Your task to perform on an android device: check google app version Image 0: 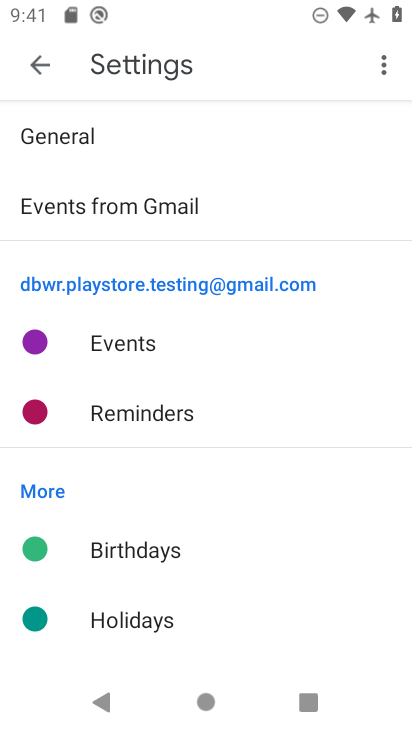
Step 0: press home button
Your task to perform on an android device: check google app version Image 1: 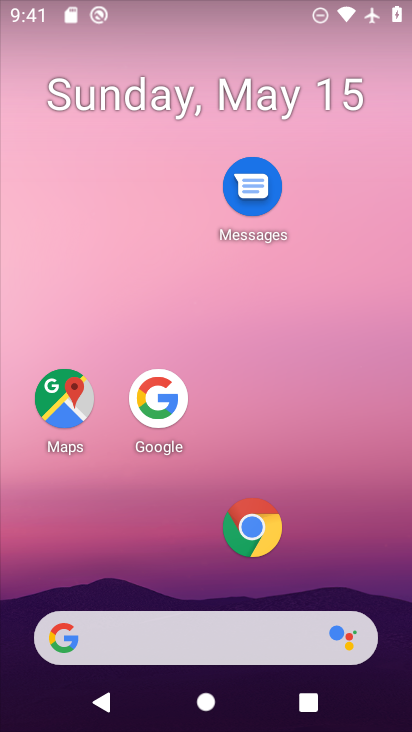
Step 1: drag from (249, 346) to (272, 287)
Your task to perform on an android device: check google app version Image 2: 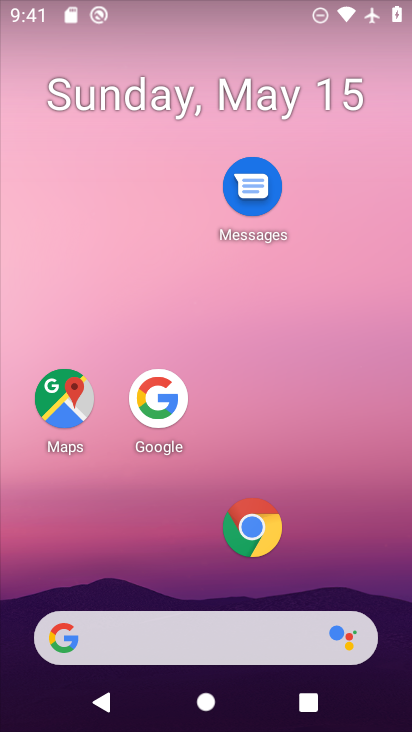
Step 2: drag from (163, 385) to (191, 360)
Your task to perform on an android device: check google app version Image 3: 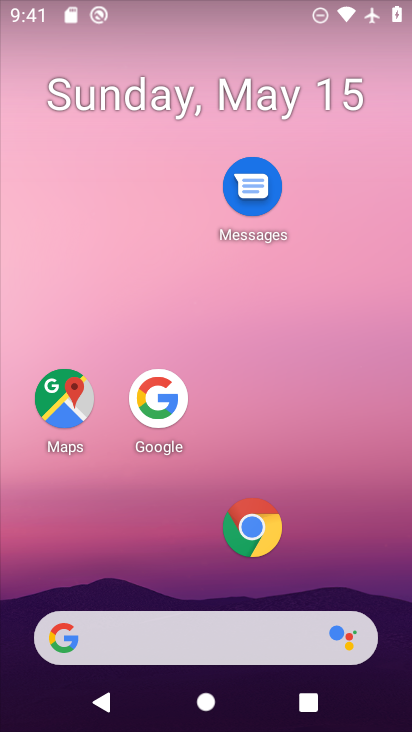
Step 3: click (323, 195)
Your task to perform on an android device: check google app version Image 4: 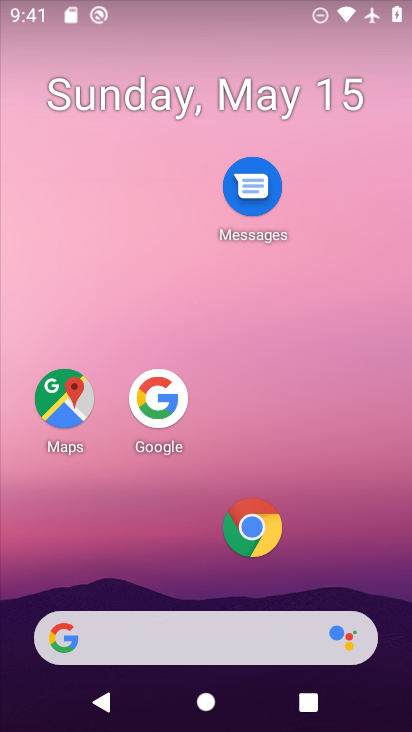
Step 4: drag from (170, 405) to (213, 350)
Your task to perform on an android device: check google app version Image 5: 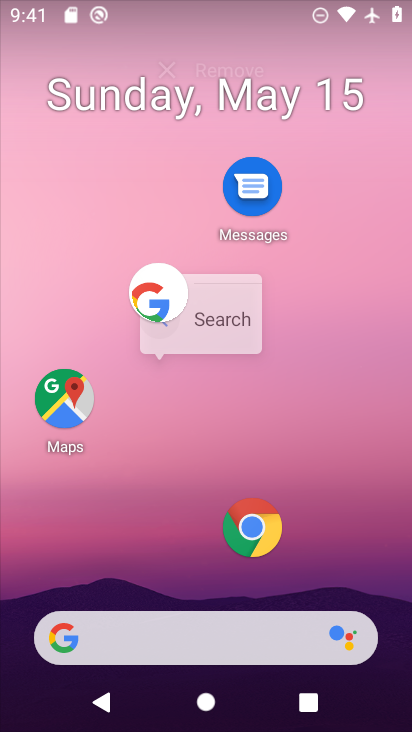
Step 5: click (312, 195)
Your task to perform on an android device: check google app version Image 6: 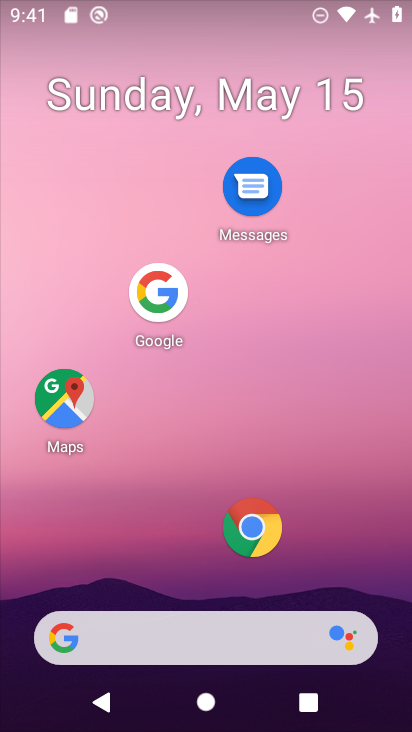
Step 6: drag from (174, 295) to (201, 268)
Your task to perform on an android device: check google app version Image 7: 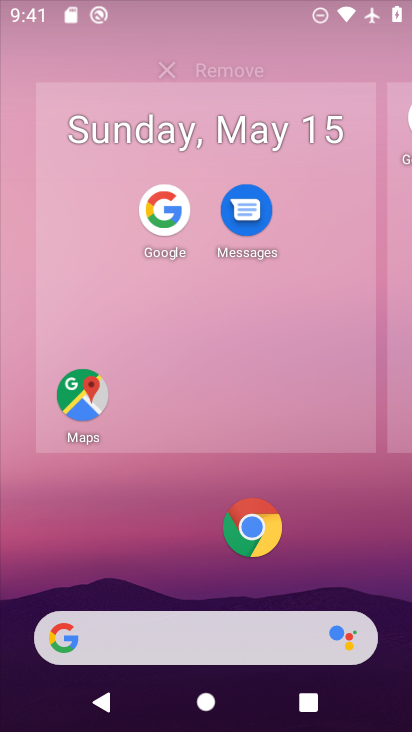
Step 7: click (309, 82)
Your task to perform on an android device: check google app version Image 8: 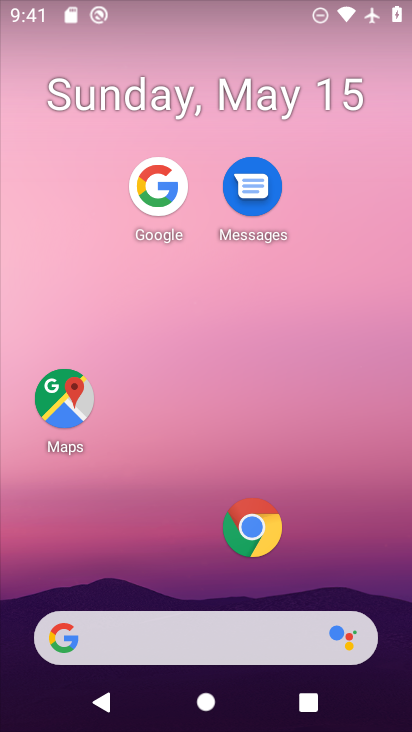
Step 8: click (159, 199)
Your task to perform on an android device: check google app version Image 9: 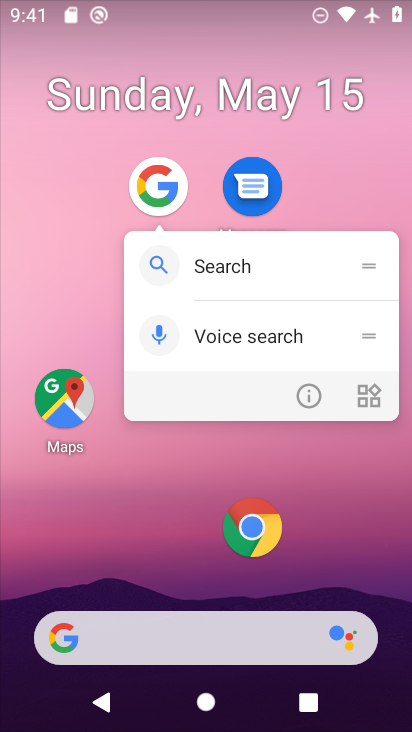
Step 9: click (312, 392)
Your task to perform on an android device: check google app version Image 10: 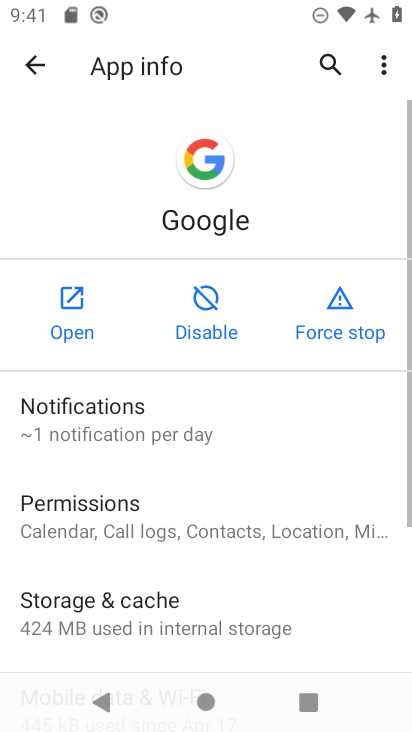
Step 10: drag from (189, 613) to (371, 87)
Your task to perform on an android device: check google app version Image 11: 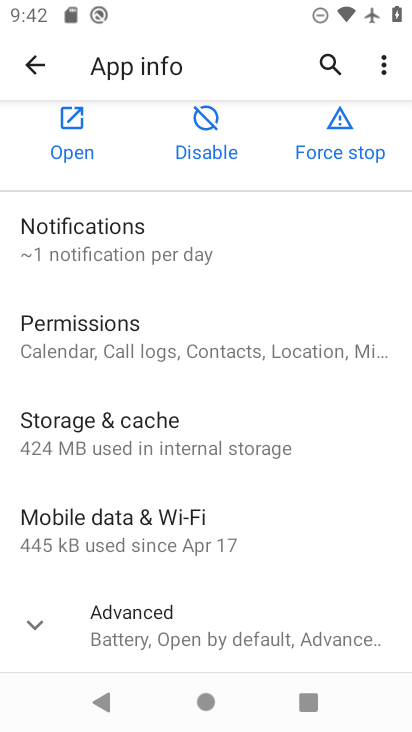
Step 11: click (159, 631)
Your task to perform on an android device: check google app version Image 12: 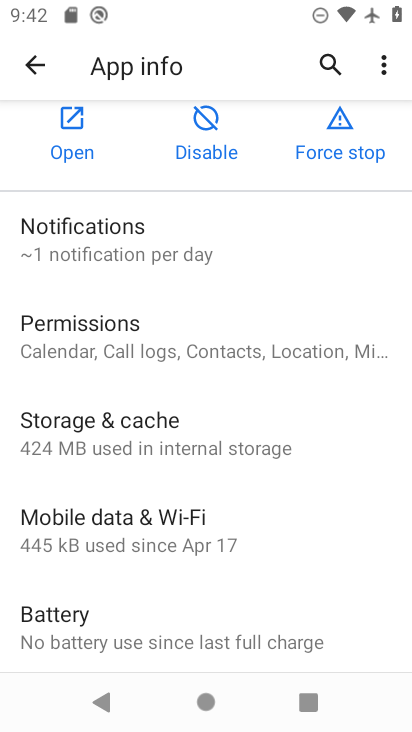
Step 12: task complete